Your task to perform on an android device: Look up the best rated video games on bestbuy.com Image 0: 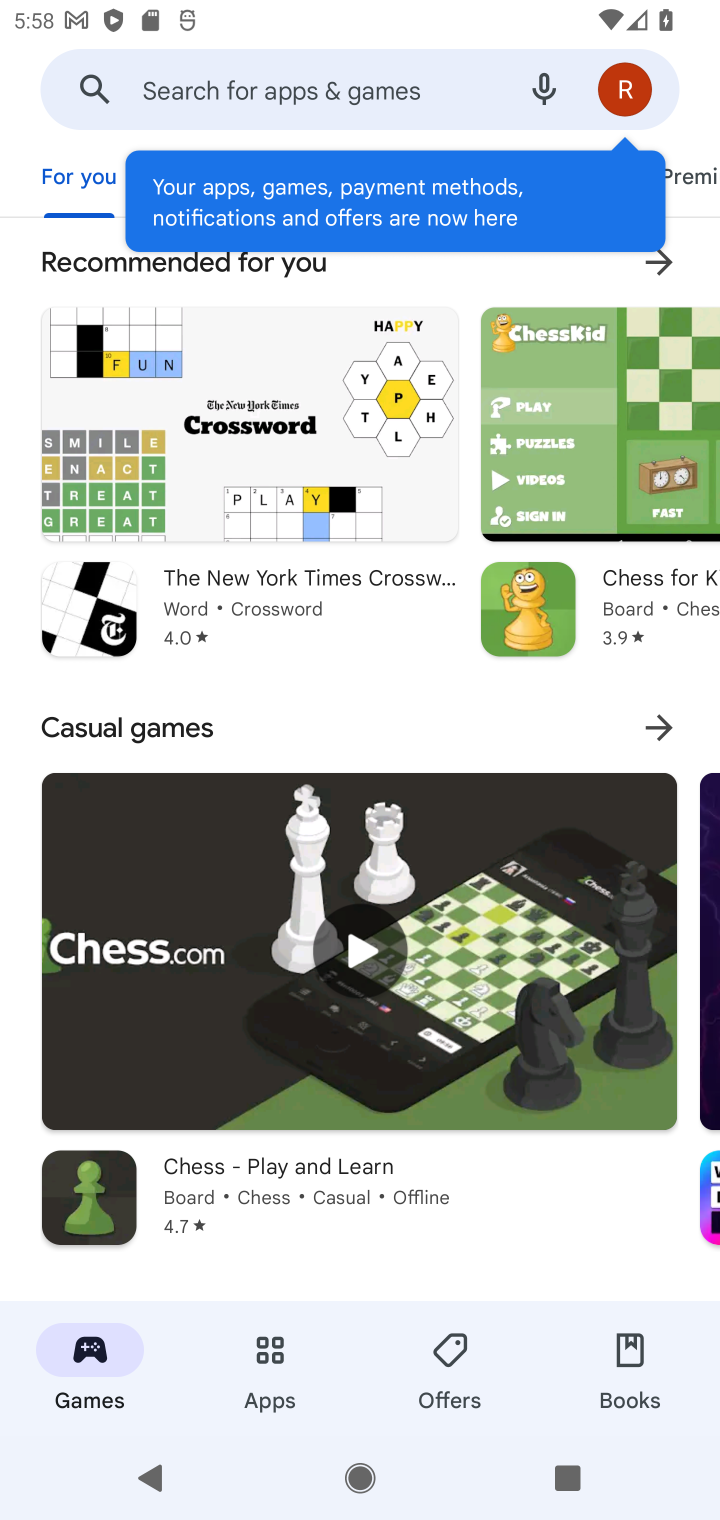
Step 0: press home button
Your task to perform on an android device: Look up the best rated video games on bestbuy.com Image 1: 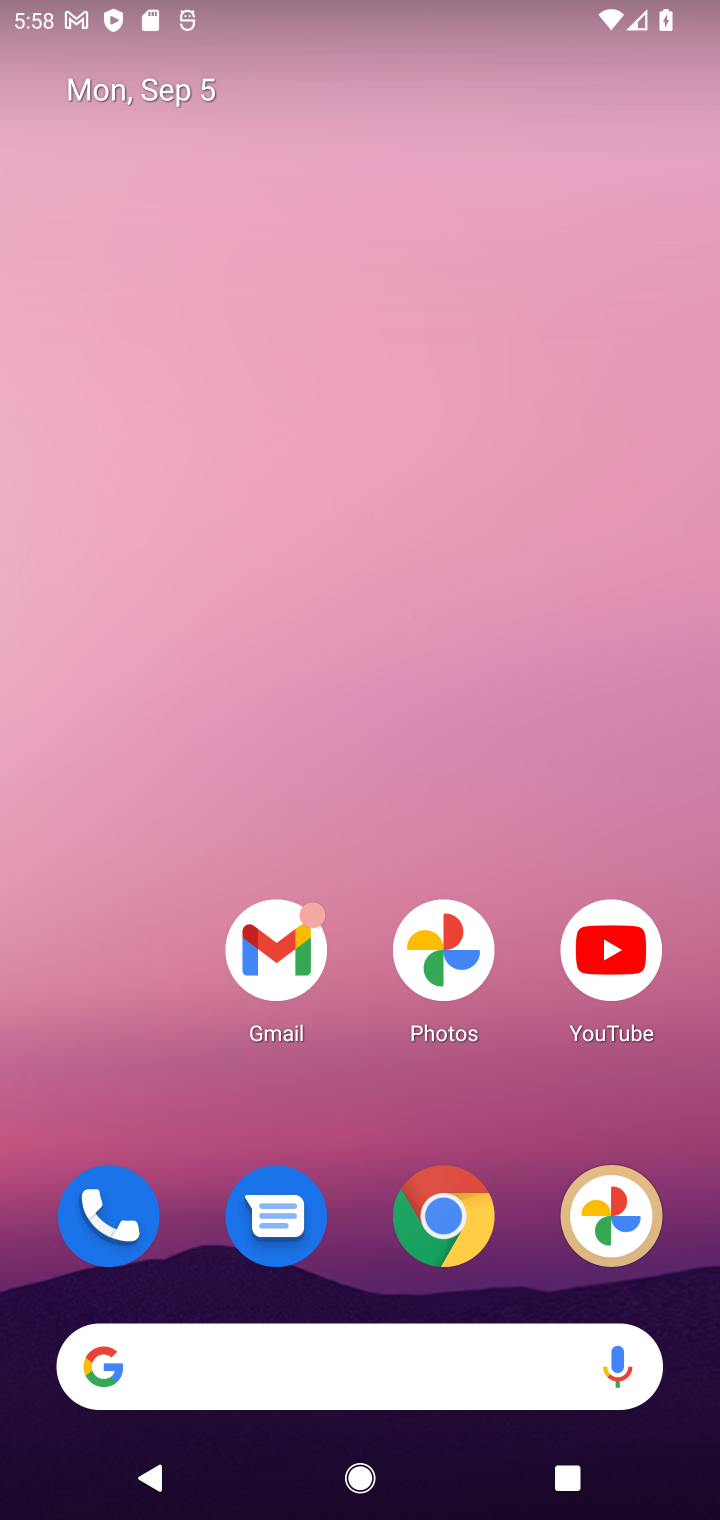
Step 1: click (453, 1210)
Your task to perform on an android device: Look up the best rated video games on bestbuy.com Image 2: 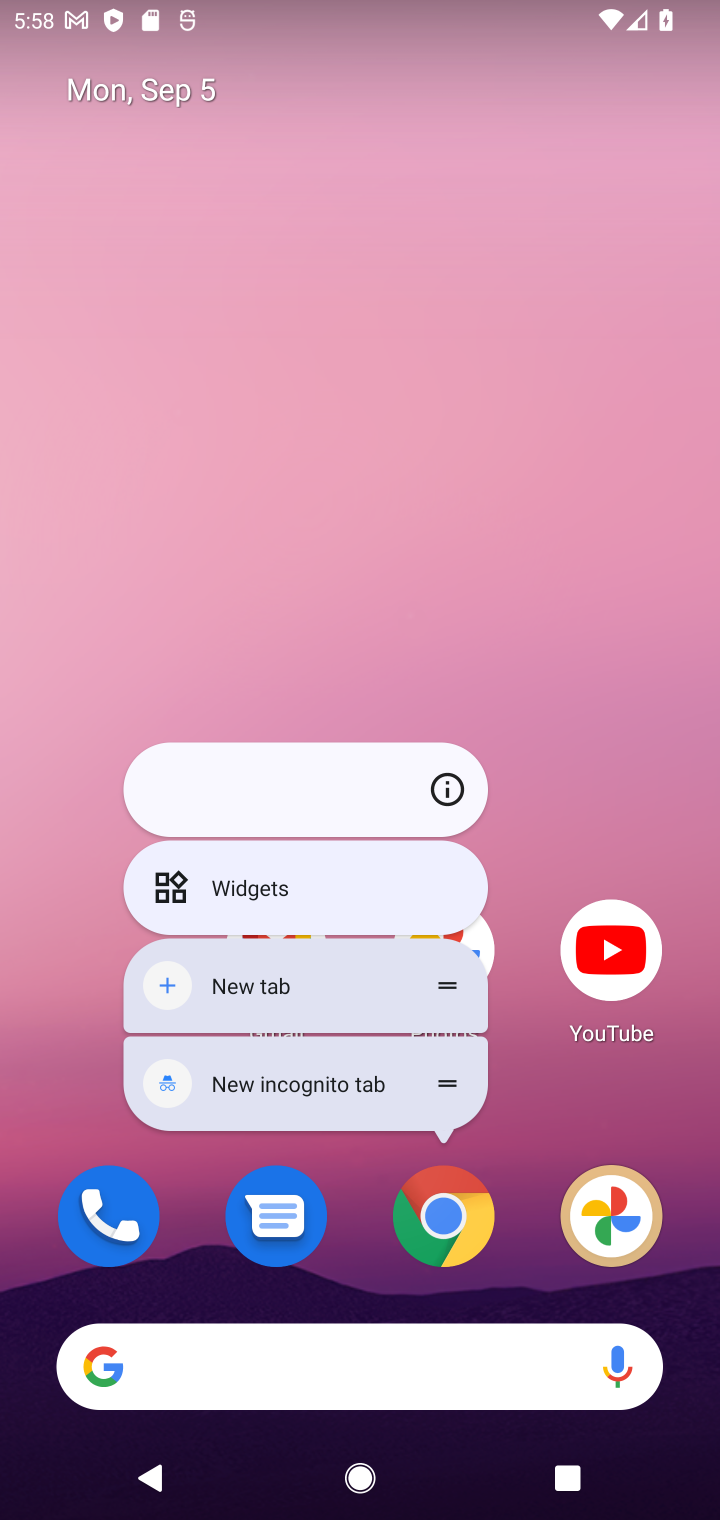
Step 2: click (436, 1203)
Your task to perform on an android device: Look up the best rated video games on bestbuy.com Image 3: 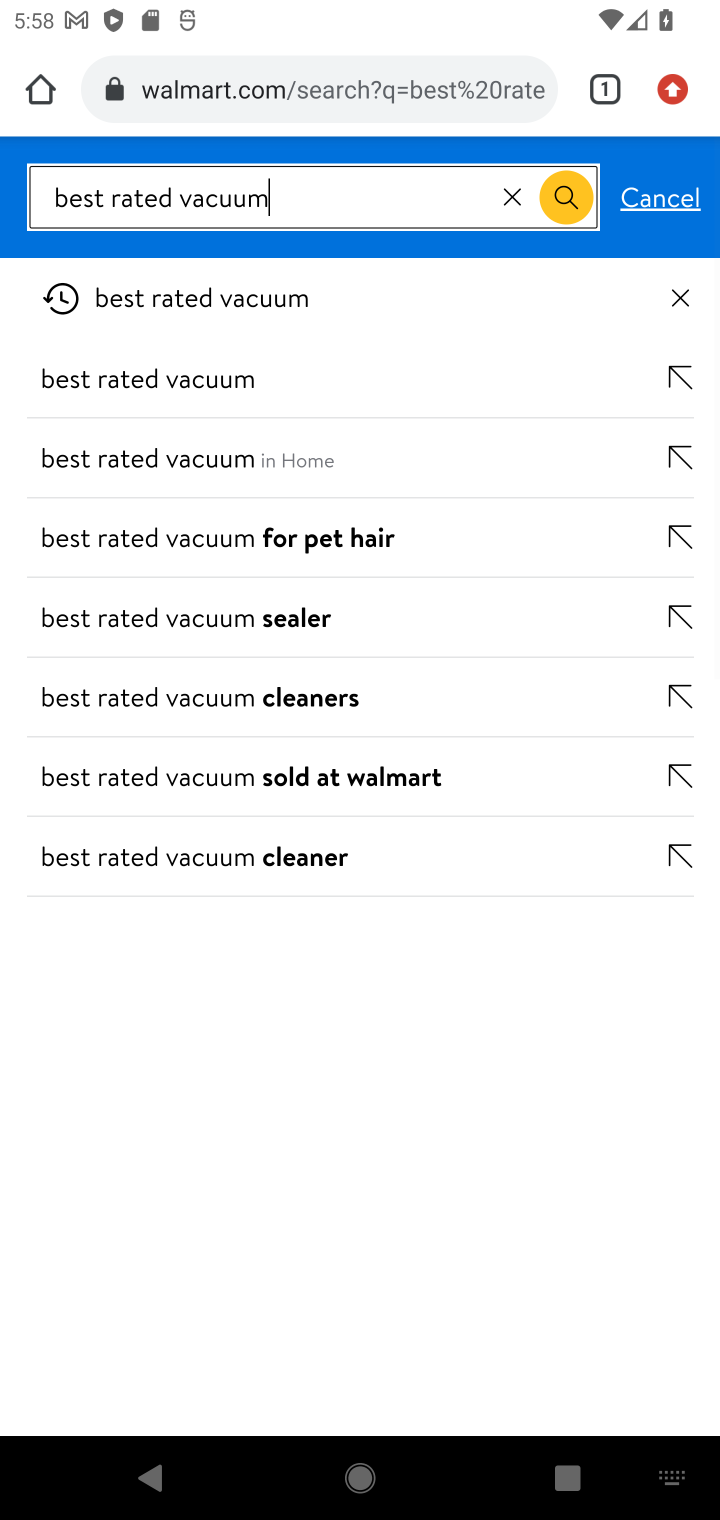
Step 3: click (395, 88)
Your task to perform on an android device: Look up the best rated video games on bestbuy.com Image 4: 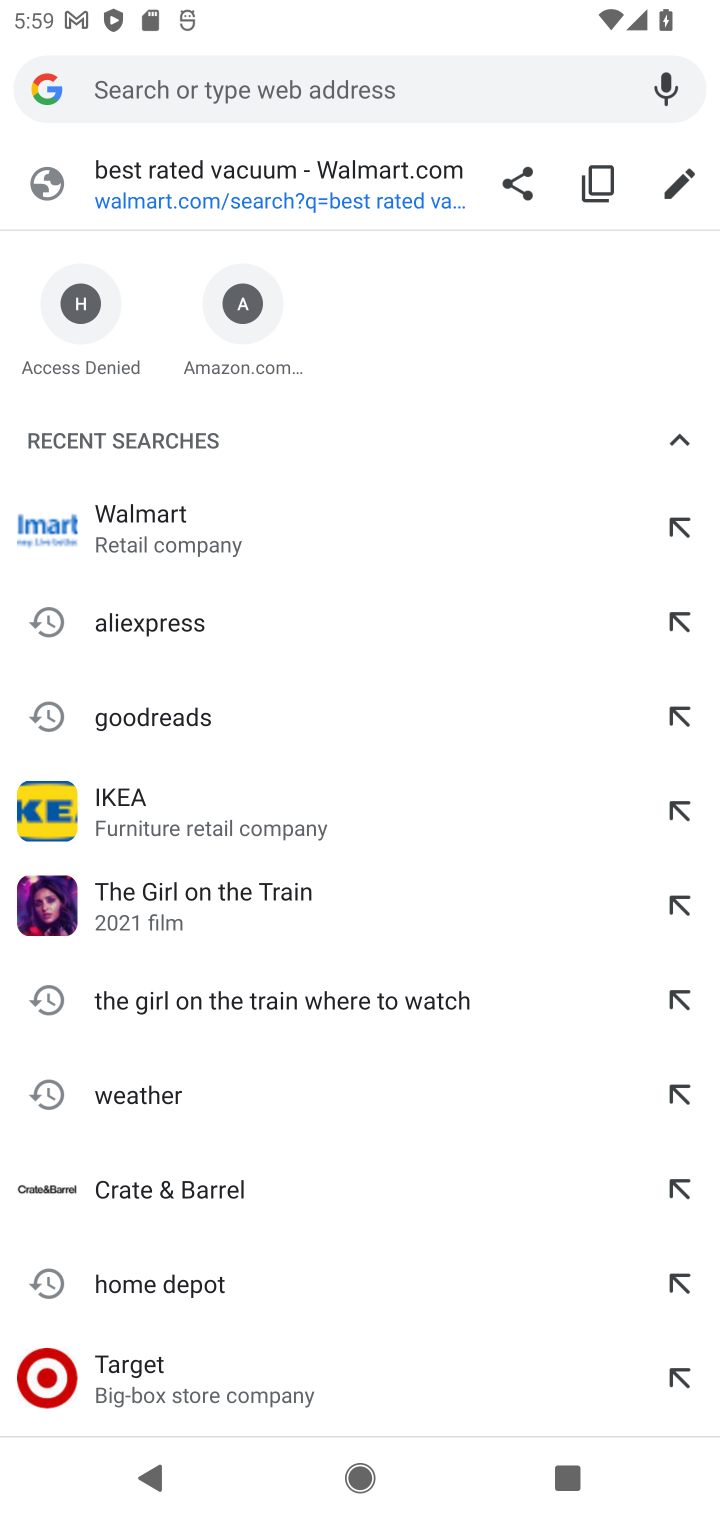
Step 4: type "bestbuy.com"
Your task to perform on an android device: Look up the best rated video games on bestbuy.com Image 5: 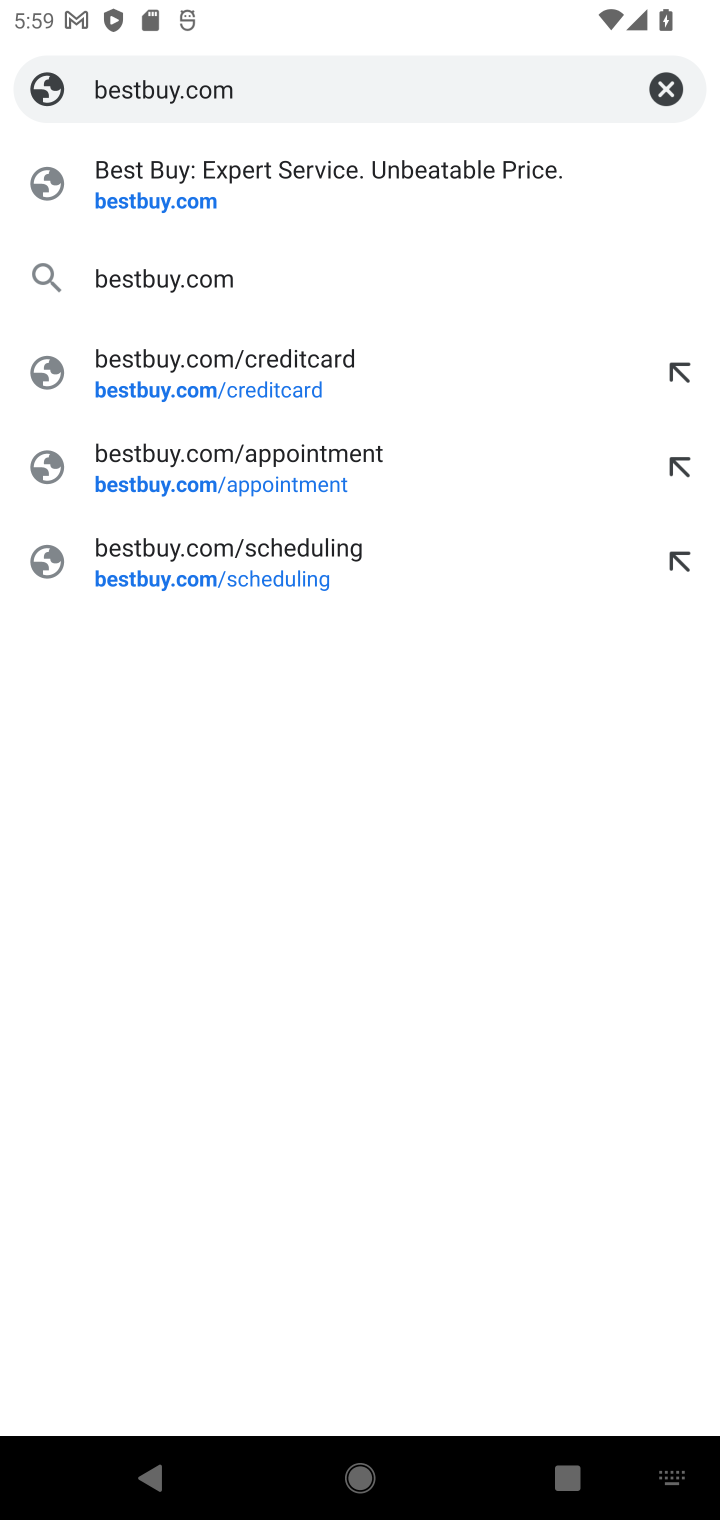
Step 5: click (402, 174)
Your task to perform on an android device: Look up the best rated video games on bestbuy.com Image 6: 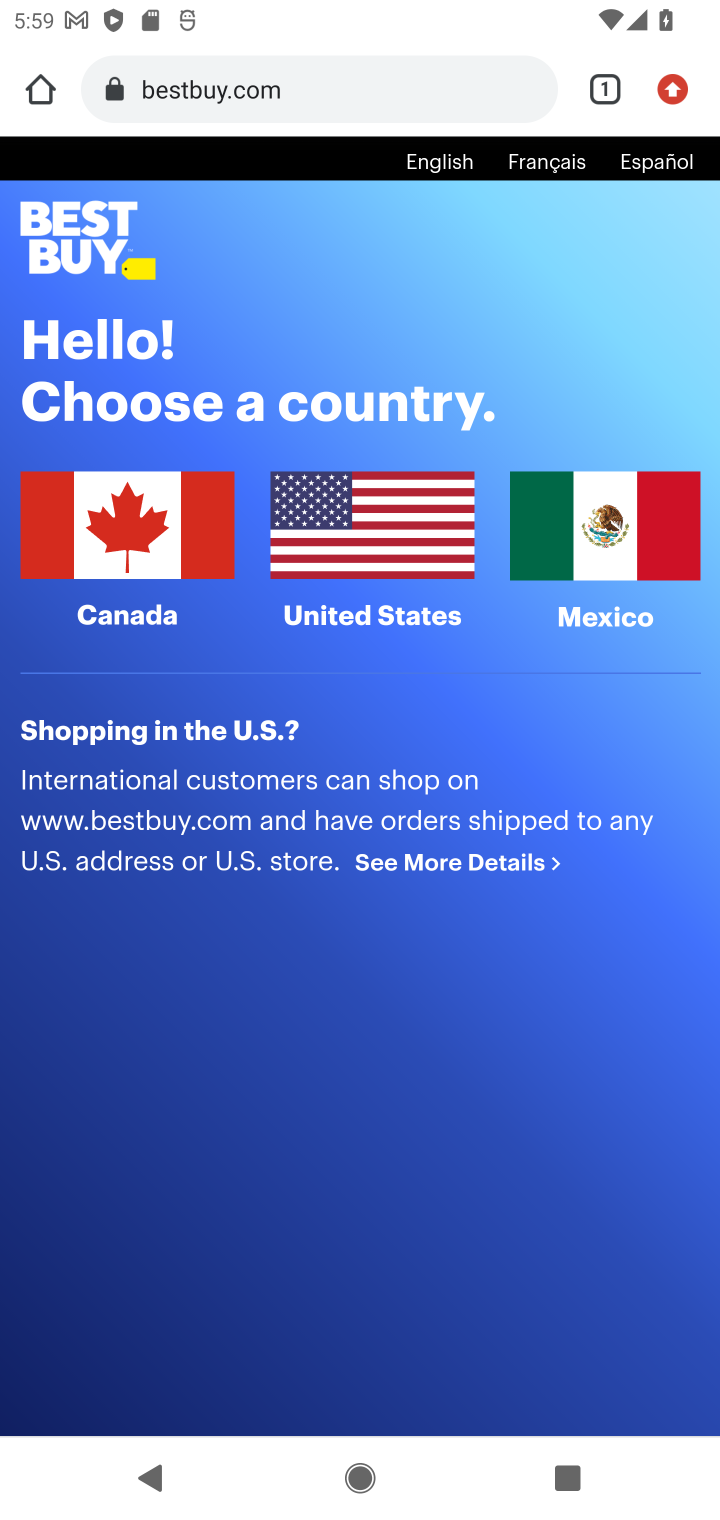
Step 6: click (352, 534)
Your task to perform on an android device: Look up the best rated video games on bestbuy.com Image 7: 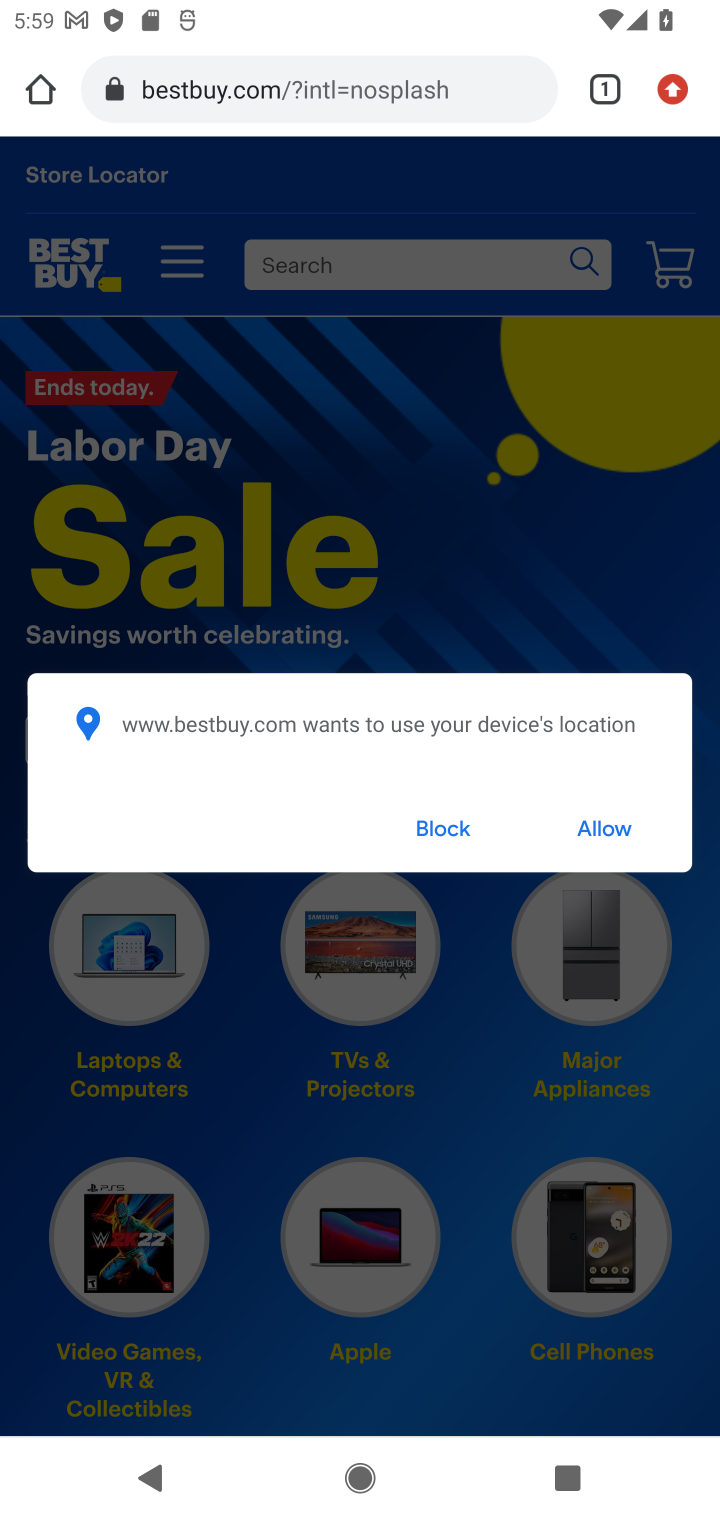
Step 7: click (624, 837)
Your task to perform on an android device: Look up the best rated video games on bestbuy.com Image 8: 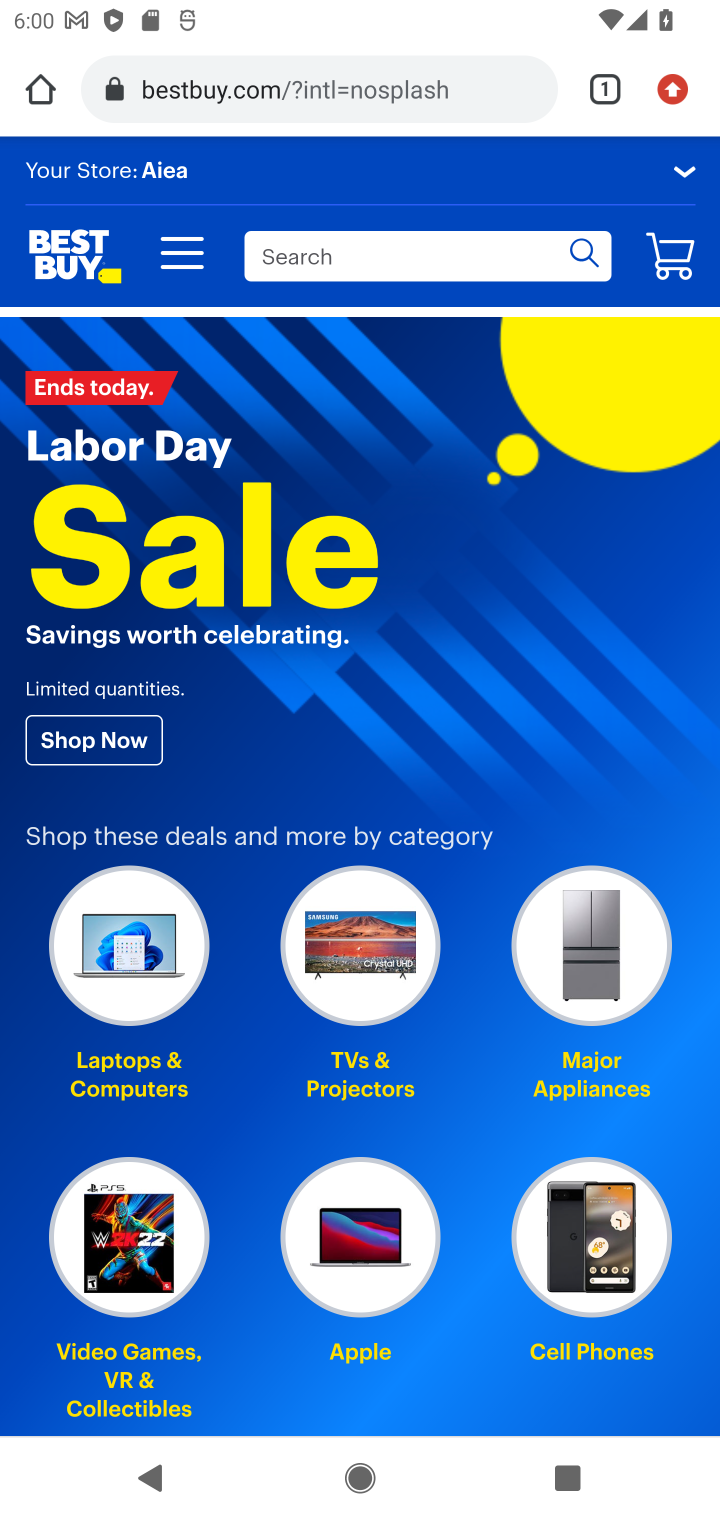
Step 8: click (400, 272)
Your task to perform on an android device: Look up the best rated video games on bestbuy.com Image 9: 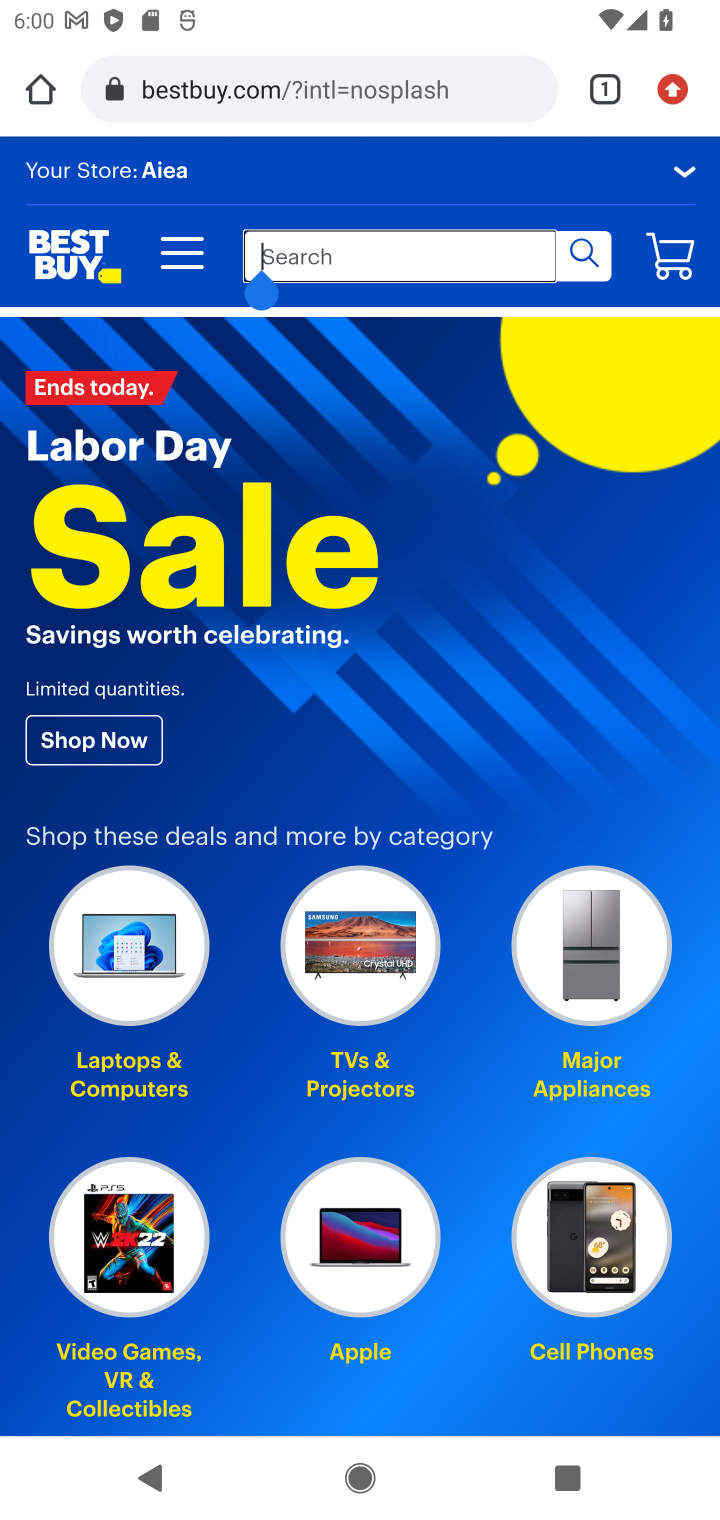
Step 9: type "best rated video games"
Your task to perform on an android device: Look up the best rated video games on bestbuy.com Image 10: 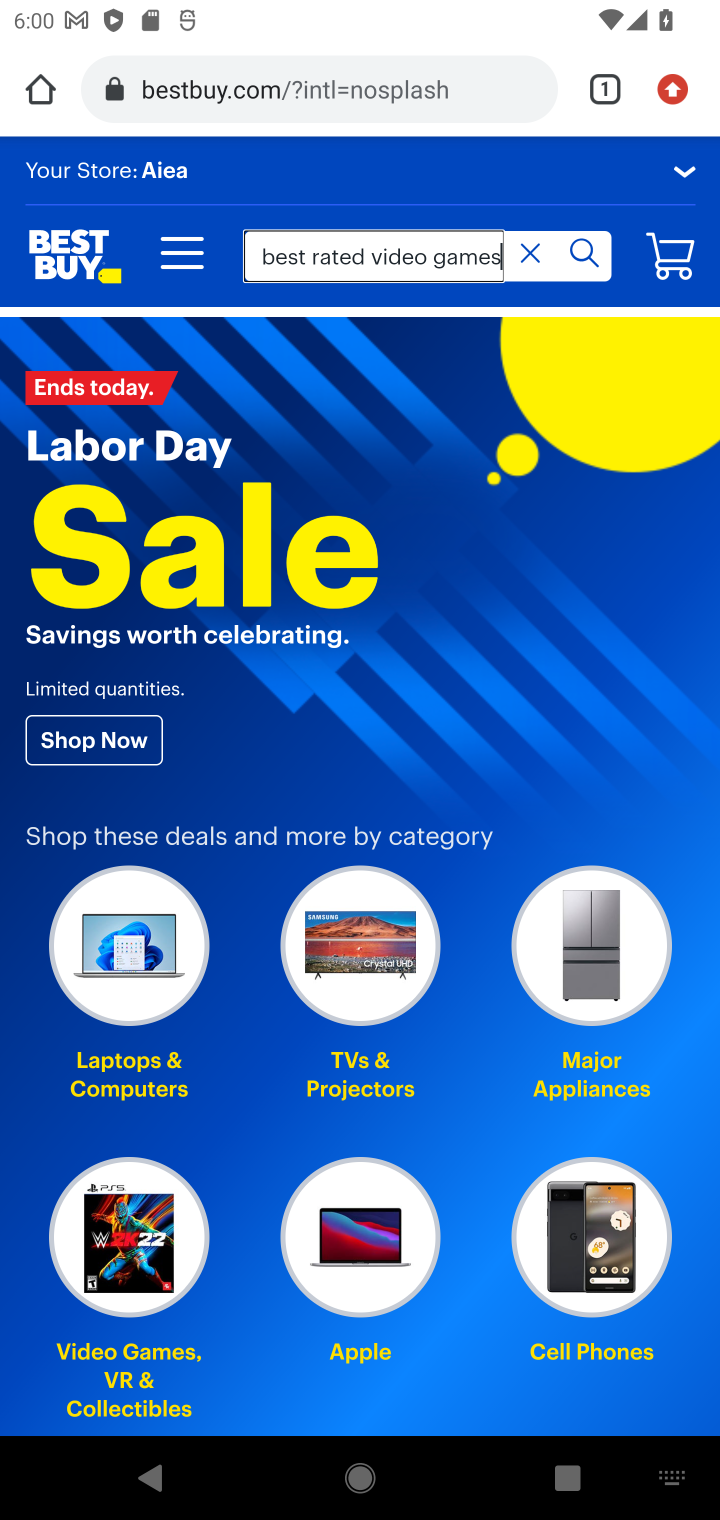
Step 10: press enter
Your task to perform on an android device: Look up the best rated video games on bestbuy.com Image 11: 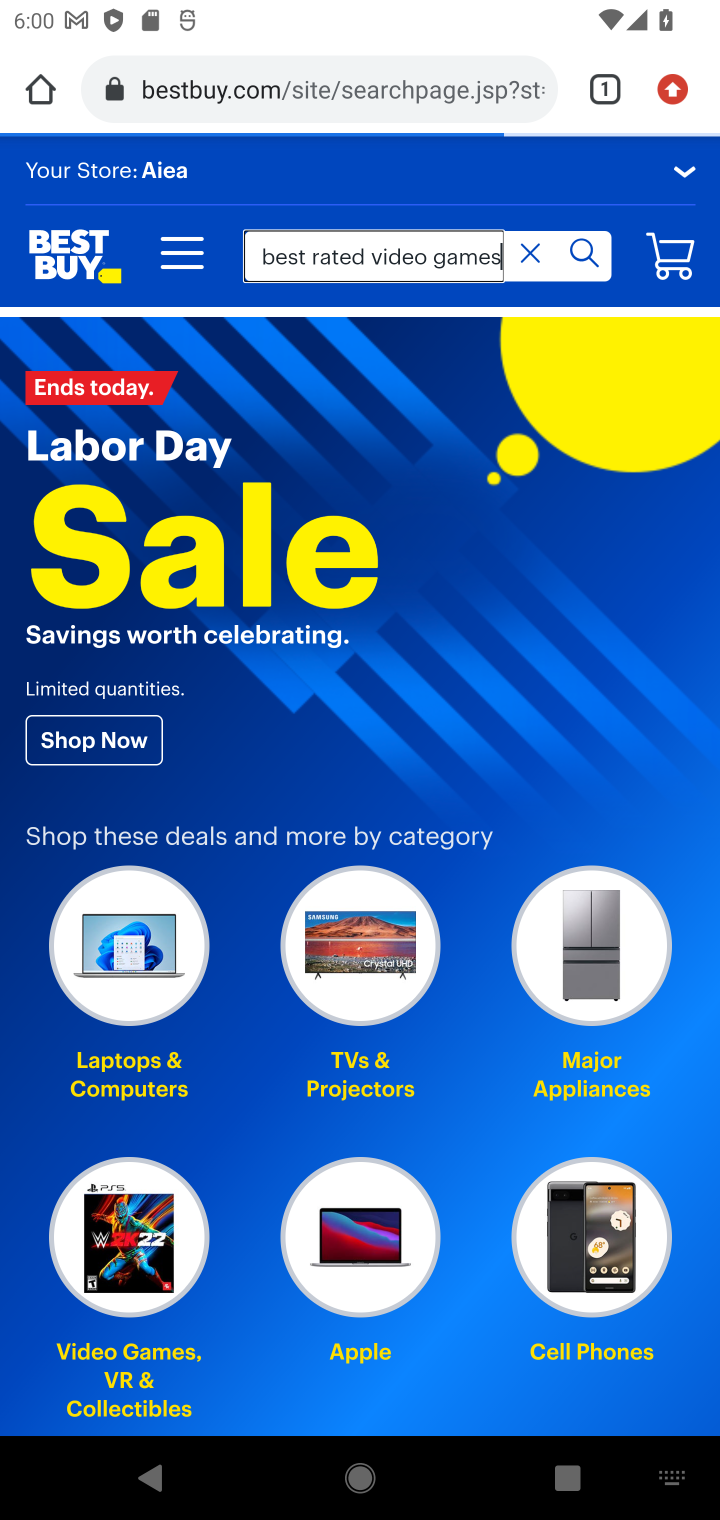
Step 11: click (594, 255)
Your task to perform on an android device: Look up the best rated video games on bestbuy.com Image 12: 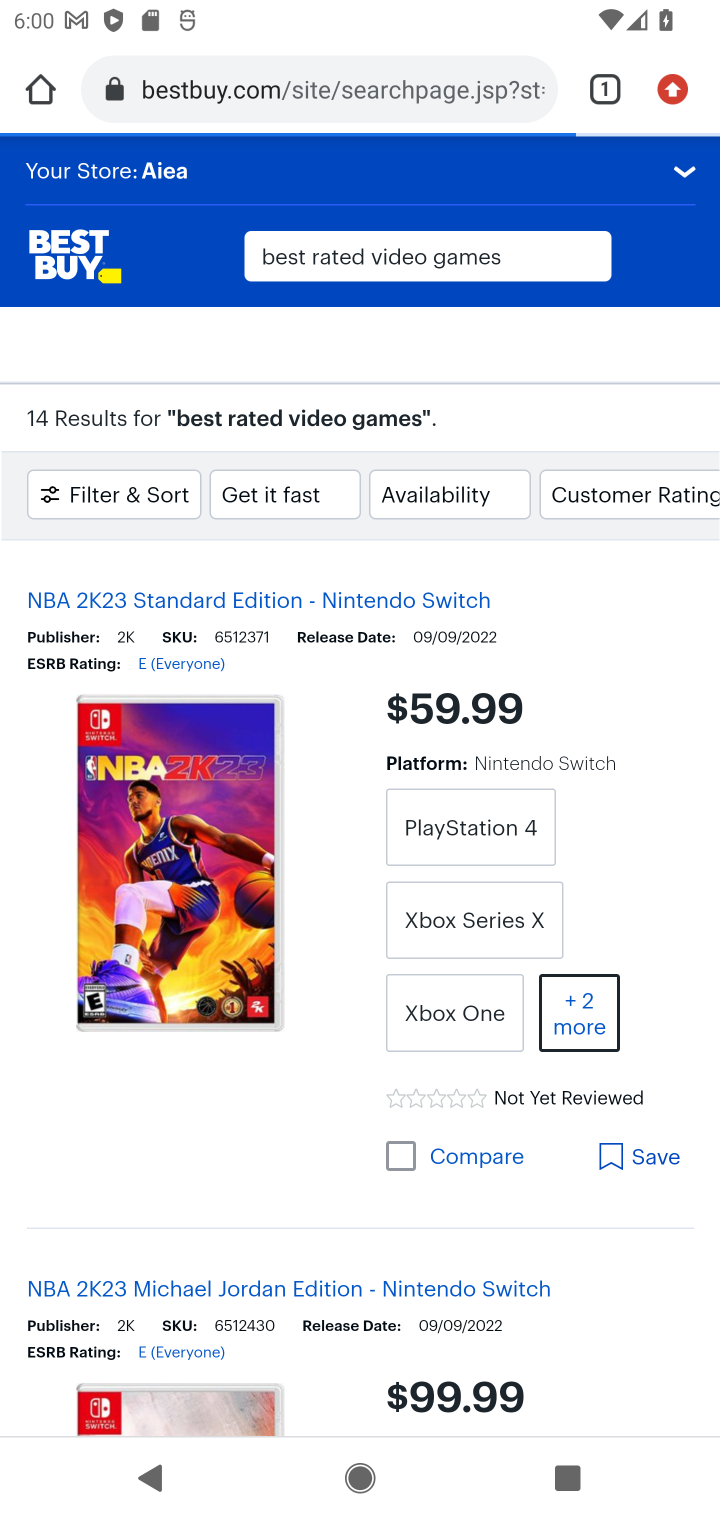
Step 12: task complete